Your task to perform on an android device: Go to accessibility settings Image 0: 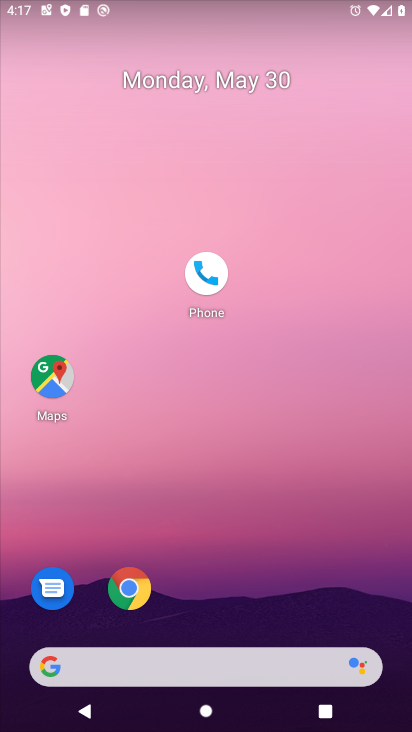
Step 0: drag from (287, 569) to (249, 115)
Your task to perform on an android device: Go to accessibility settings Image 1: 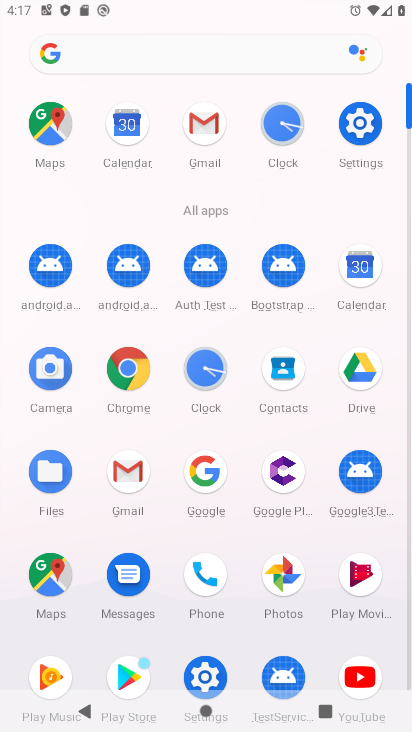
Step 1: click (365, 127)
Your task to perform on an android device: Go to accessibility settings Image 2: 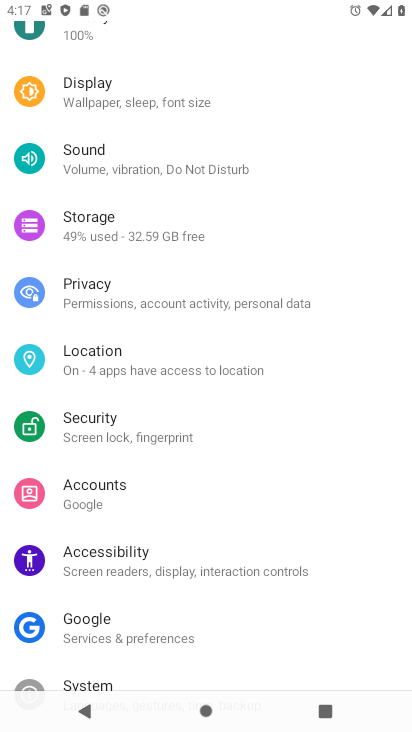
Step 2: click (260, 559)
Your task to perform on an android device: Go to accessibility settings Image 3: 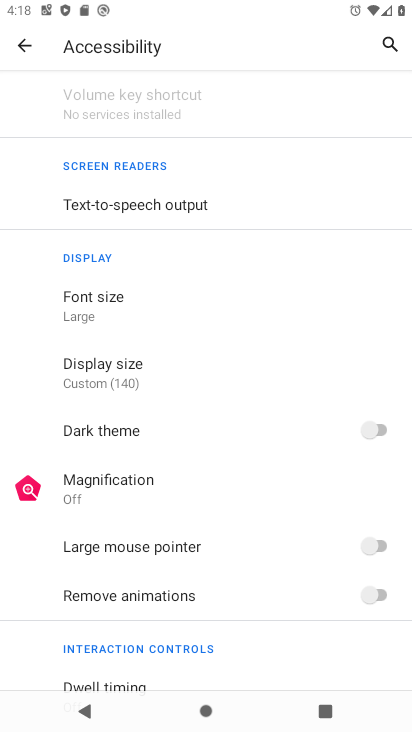
Step 3: task complete